Your task to perform on an android device: Open Youtube and go to the subscriptions tab Image 0: 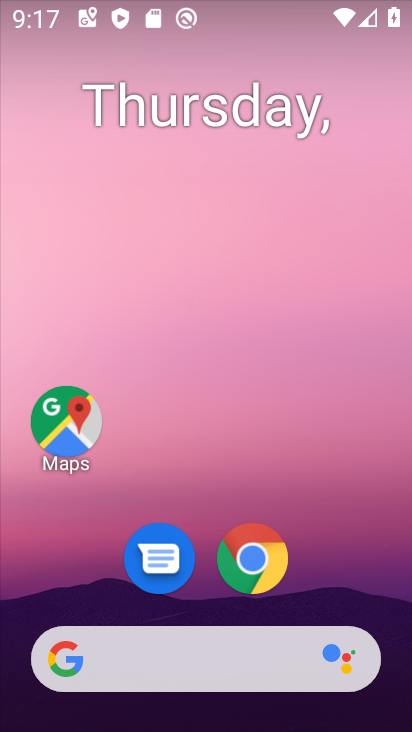
Step 0: drag from (339, 568) to (344, 1)
Your task to perform on an android device: Open Youtube and go to the subscriptions tab Image 1: 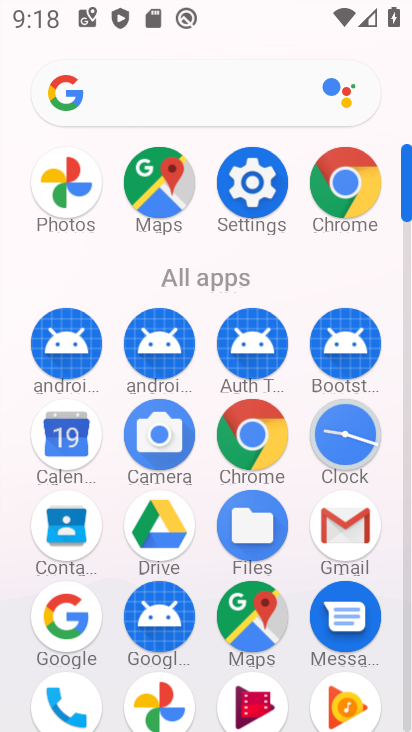
Step 1: drag from (280, 562) to (318, 305)
Your task to perform on an android device: Open Youtube and go to the subscriptions tab Image 2: 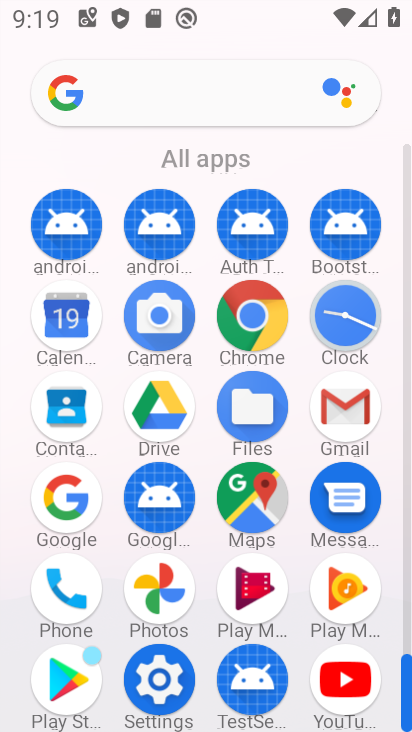
Step 2: click (349, 676)
Your task to perform on an android device: Open Youtube and go to the subscriptions tab Image 3: 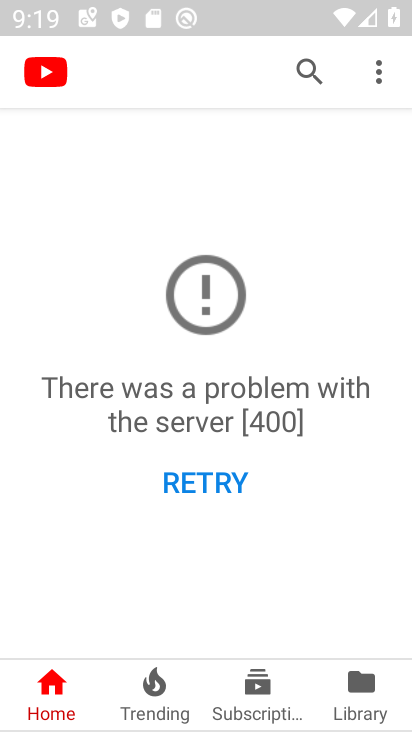
Step 3: click (200, 479)
Your task to perform on an android device: Open Youtube and go to the subscriptions tab Image 4: 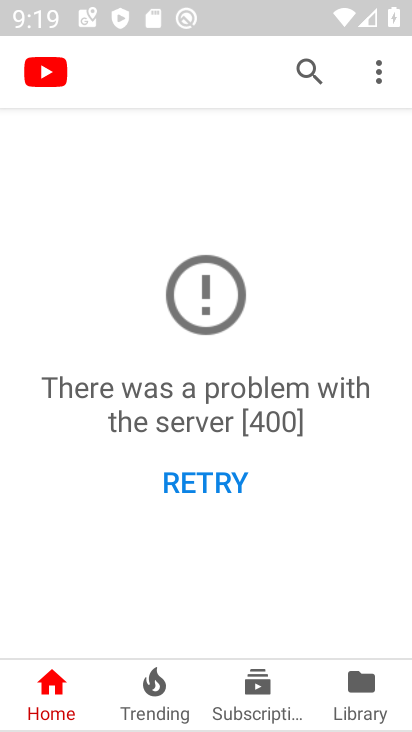
Step 4: click (254, 677)
Your task to perform on an android device: Open Youtube and go to the subscriptions tab Image 5: 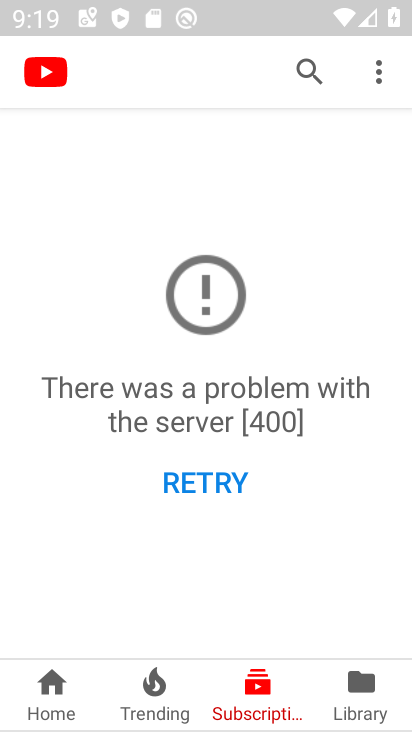
Step 5: task complete